Your task to perform on an android device: open app "Microsoft Excel" Image 0: 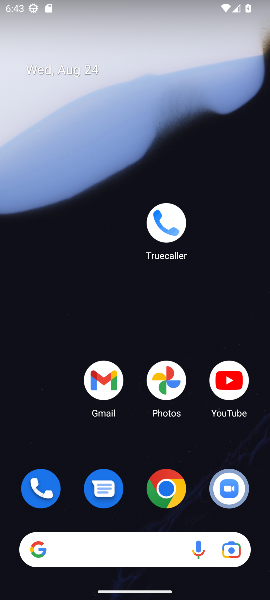
Step 0: drag from (114, 523) to (119, 64)
Your task to perform on an android device: open app "Microsoft Excel" Image 1: 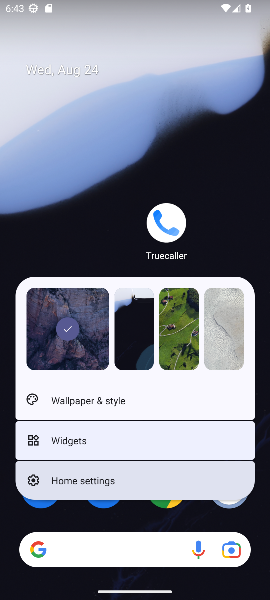
Step 1: click (134, 97)
Your task to perform on an android device: open app "Microsoft Excel" Image 2: 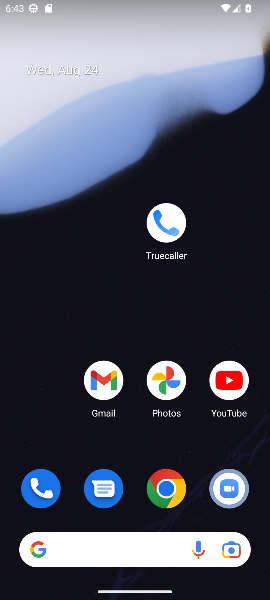
Step 2: drag from (126, 518) to (105, 79)
Your task to perform on an android device: open app "Microsoft Excel" Image 3: 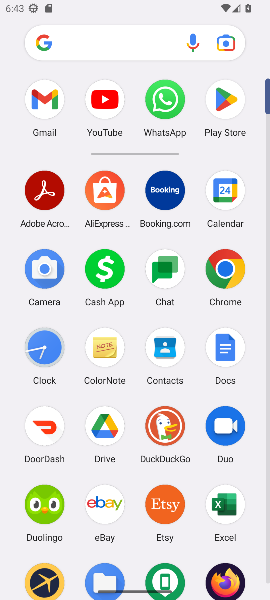
Step 3: click (216, 109)
Your task to perform on an android device: open app "Microsoft Excel" Image 4: 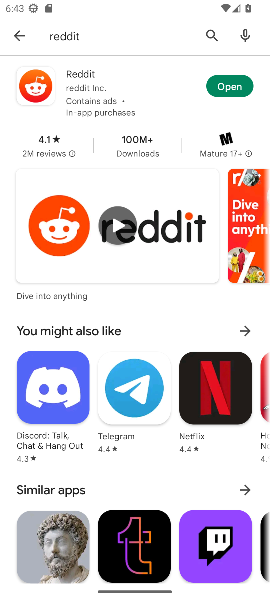
Step 4: click (203, 43)
Your task to perform on an android device: open app "Microsoft Excel" Image 5: 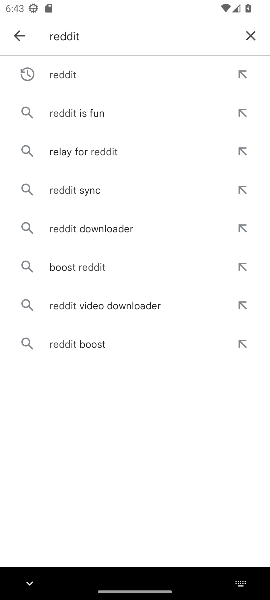
Step 5: click (244, 45)
Your task to perform on an android device: open app "Microsoft Excel" Image 6: 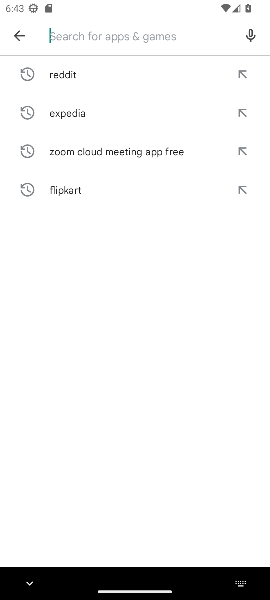
Step 6: type "microsoft excel"
Your task to perform on an android device: open app "Microsoft Excel" Image 7: 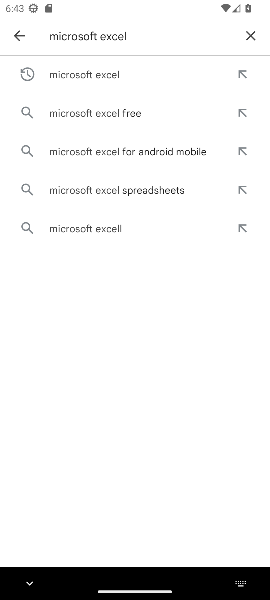
Step 7: click (127, 73)
Your task to perform on an android device: open app "Microsoft Excel" Image 8: 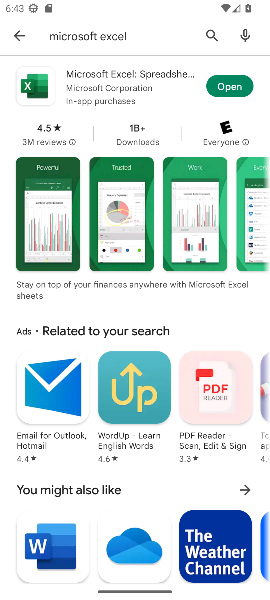
Step 8: click (224, 83)
Your task to perform on an android device: open app "Microsoft Excel" Image 9: 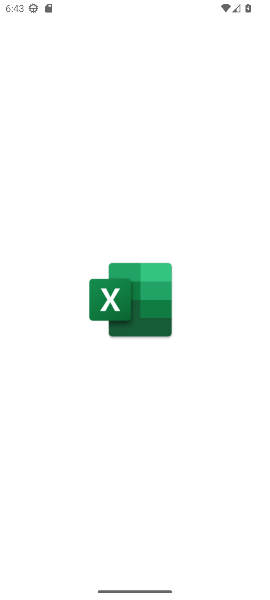
Step 9: task complete